Your task to perform on an android device: What's on my calendar today? Image 0: 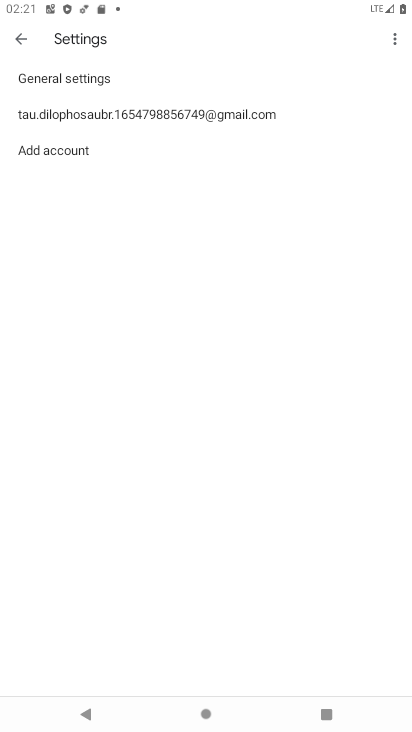
Step 0: press home button
Your task to perform on an android device: What's on my calendar today? Image 1: 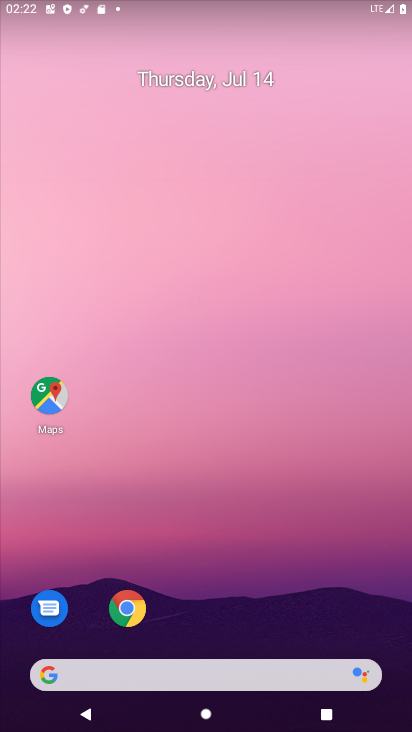
Step 1: drag from (0, 0) to (0, 695)
Your task to perform on an android device: What's on my calendar today? Image 2: 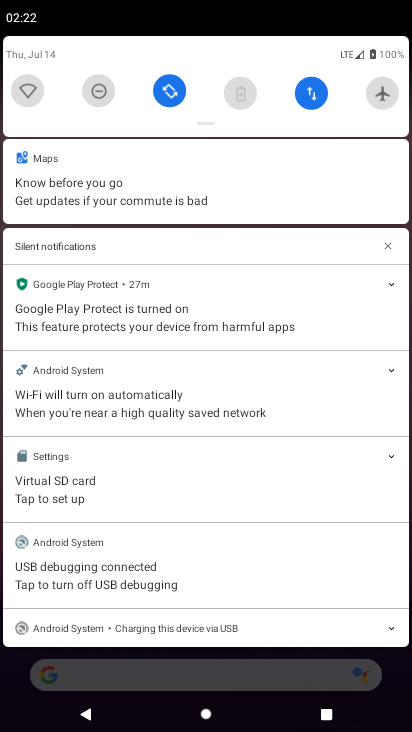
Step 2: press home button
Your task to perform on an android device: What's on my calendar today? Image 3: 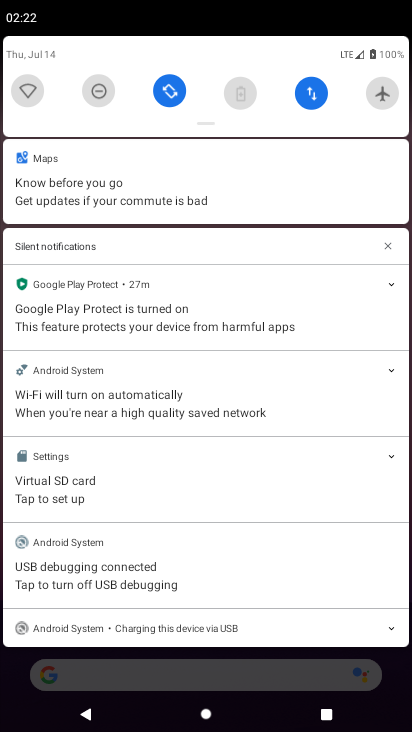
Step 3: click (0, 695)
Your task to perform on an android device: What's on my calendar today? Image 4: 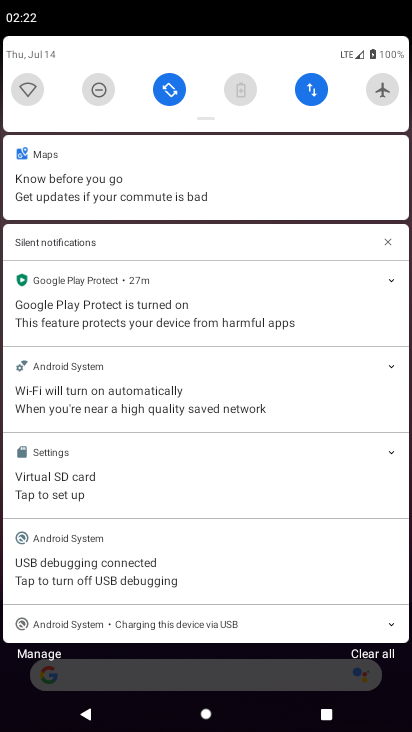
Step 4: press back button
Your task to perform on an android device: What's on my calendar today? Image 5: 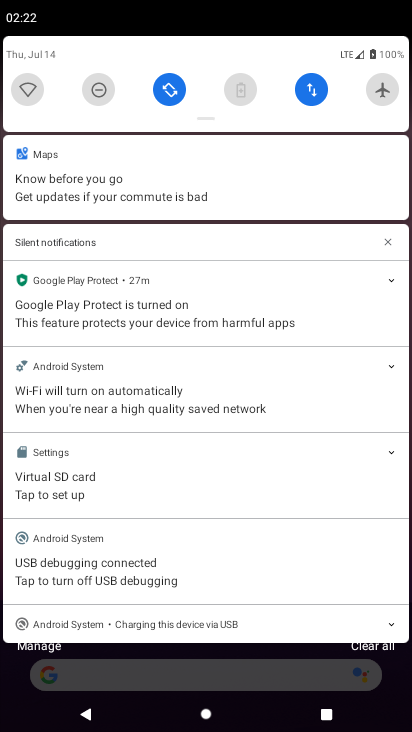
Step 5: click (0, 695)
Your task to perform on an android device: What's on my calendar today? Image 6: 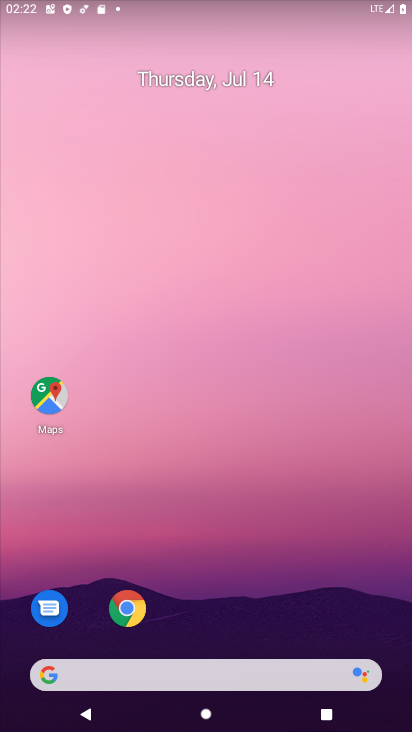
Step 6: press back button
Your task to perform on an android device: What's on my calendar today? Image 7: 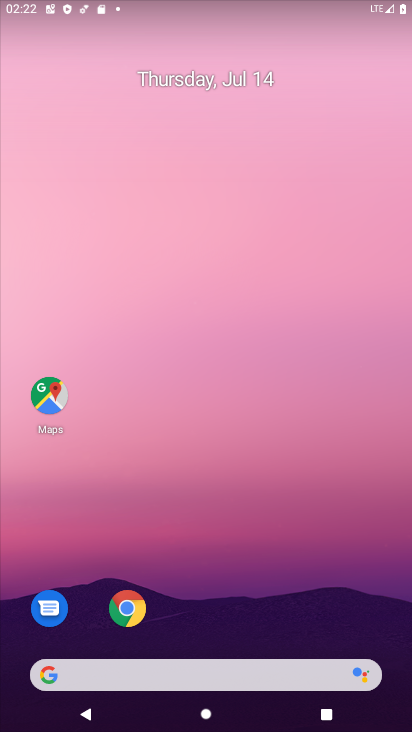
Step 7: drag from (0, 695) to (37, 198)
Your task to perform on an android device: What's on my calendar today? Image 8: 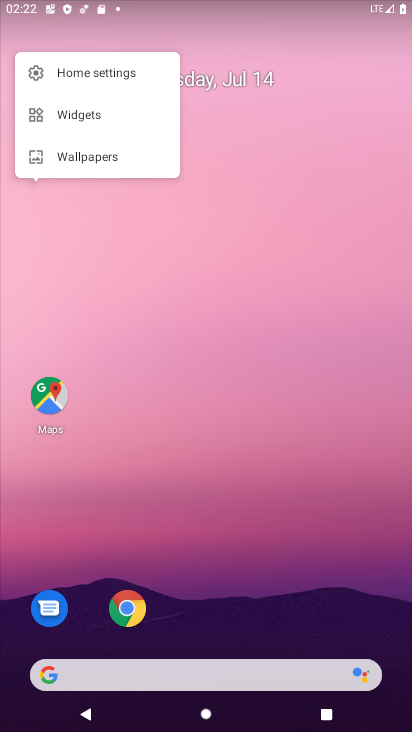
Step 8: drag from (0, 635) to (302, 132)
Your task to perform on an android device: What's on my calendar today? Image 9: 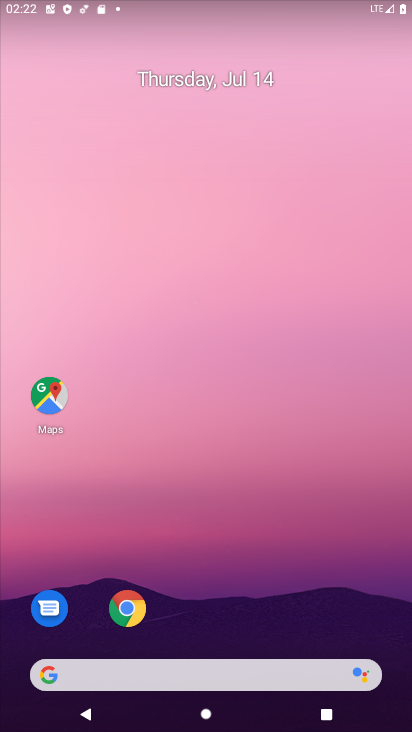
Step 9: drag from (48, 520) to (333, 76)
Your task to perform on an android device: What's on my calendar today? Image 10: 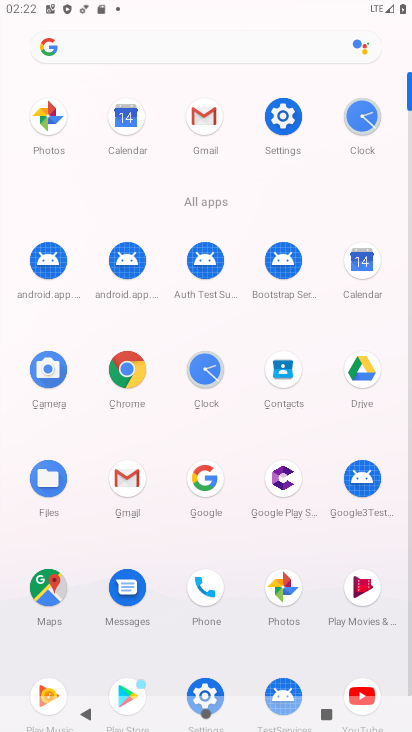
Step 10: click (368, 261)
Your task to perform on an android device: What's on my calendar today? Image 11: 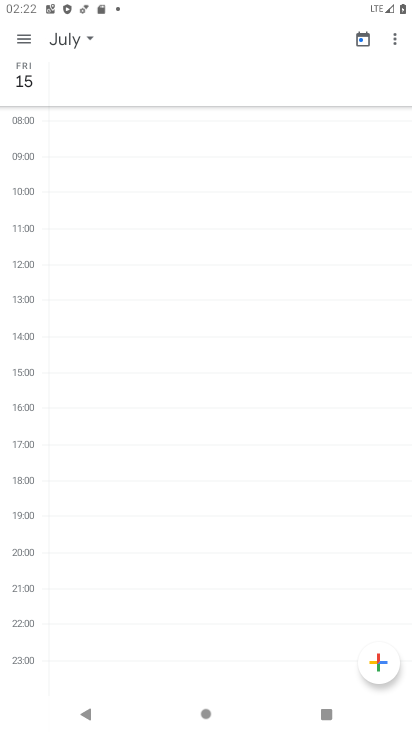
Step 11: click (64, 43)
Your task to perform on an android device: What's on my calendar today? Image 12: 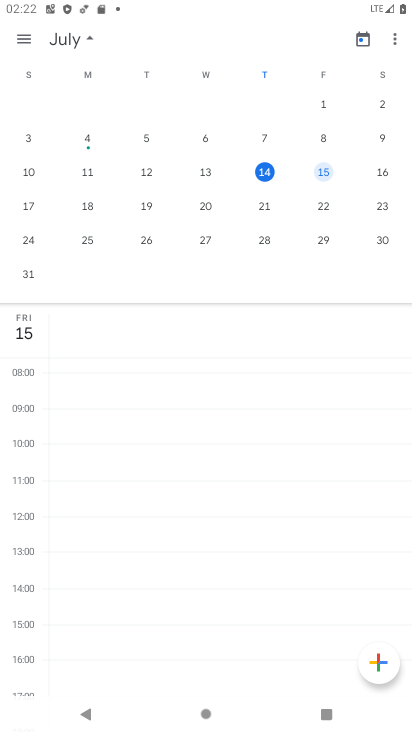
Step 12: click (312, 172)
Your task to perform on an android device: What's on my calendar today? Image 13: 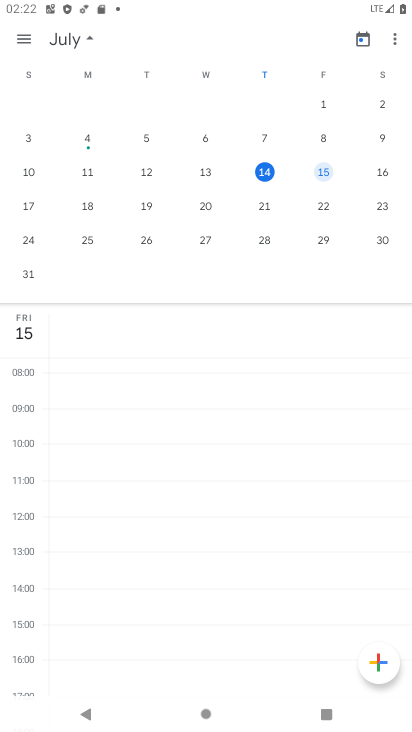
Step 13: task complete